Your task to perform on an android device: turn on sleep mode Image 0: 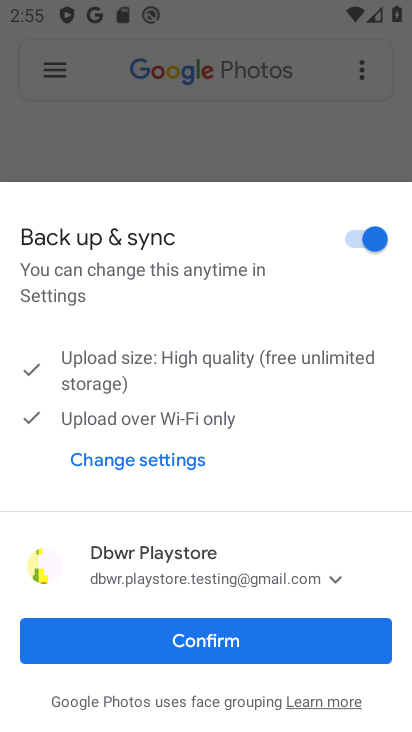
Step 0: press home button
Your task to perform on an android device: turn on sleep mode Image 1: 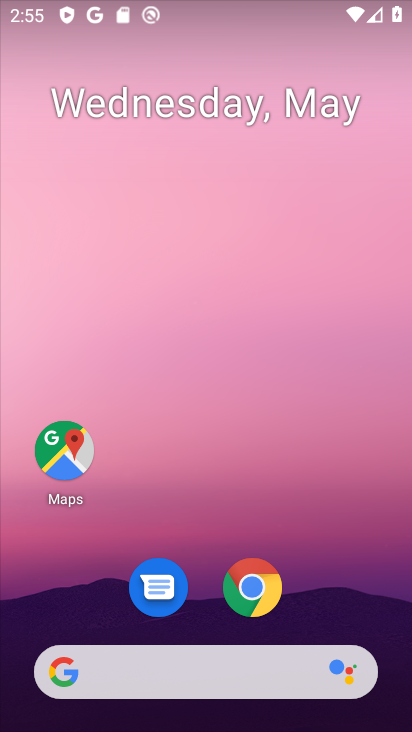
Step 1: drag from (234, 677) to (286, 163)
Your task to perform on an android device: turn on sleep mode Image 2: 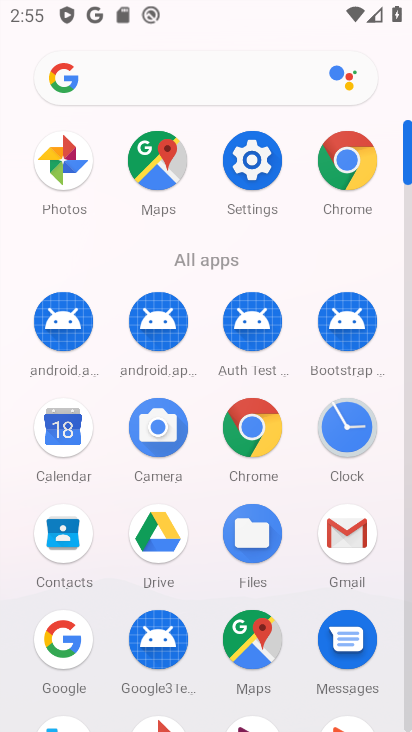
Step 2: click (274, 176)
Your task to perform on an android device: turn on sleep mode Image 3: 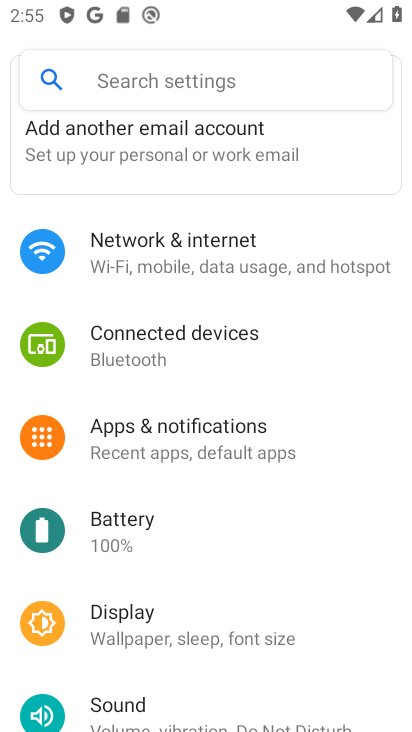
Step 3: click (155, 631)
Your task to perform on an android device: turn on sleep mode Image 4: 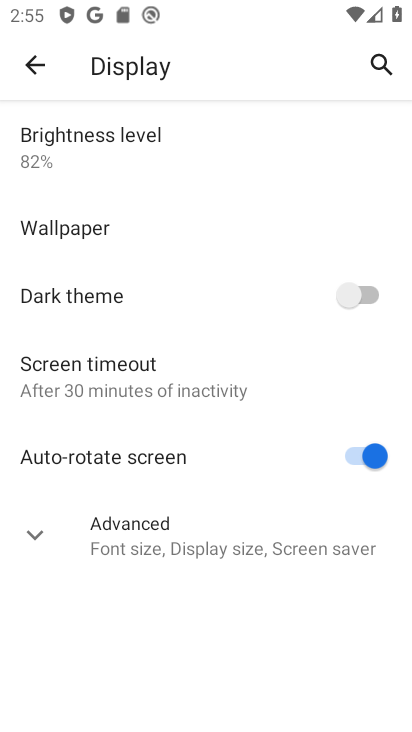
Step 4: click (186, 551)
Your task to perform on an android device: turn on sleep mode Image 5: 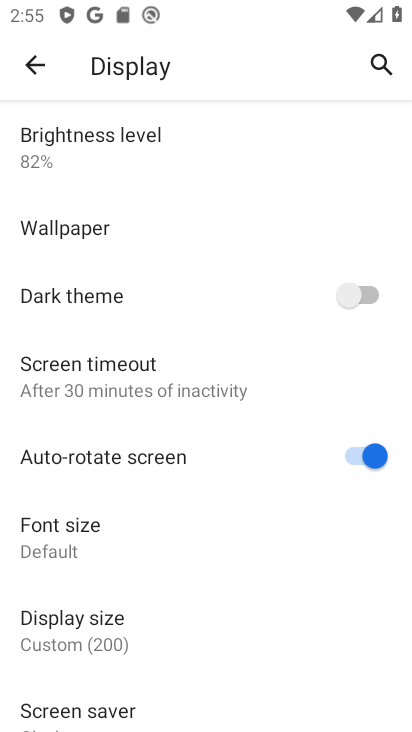
Step 5: task complete